Your task to perform on an android device: open a new tab in the chrome app Image 0: 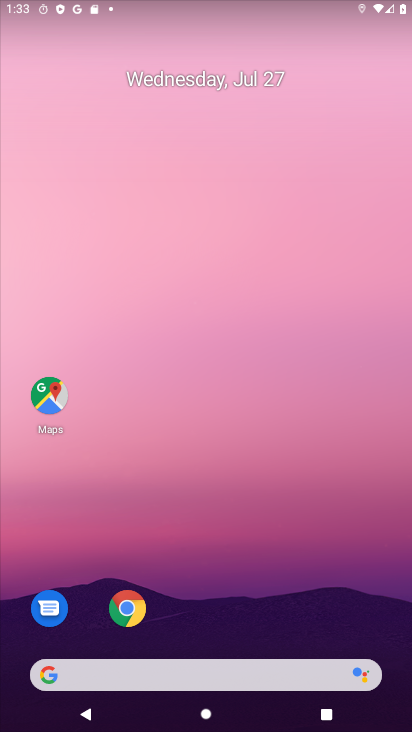
Step 0: press home button
Your task to perform on an android device: open a new tab in the chrome app Image 1: 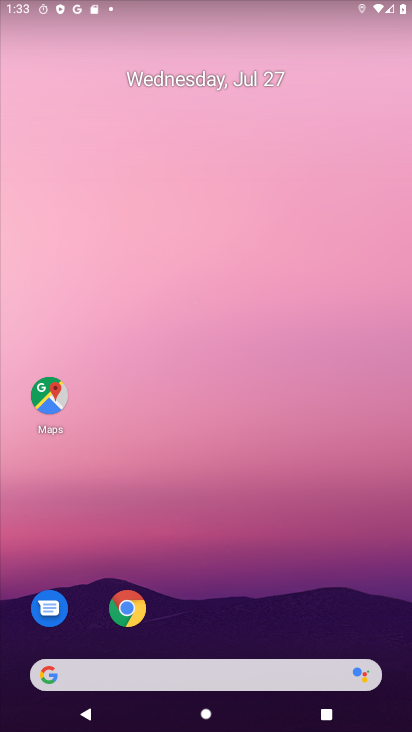
Step 1: click (119, 610)
Your task to perform on an android device: open a new tab in the chrome app Image 2: 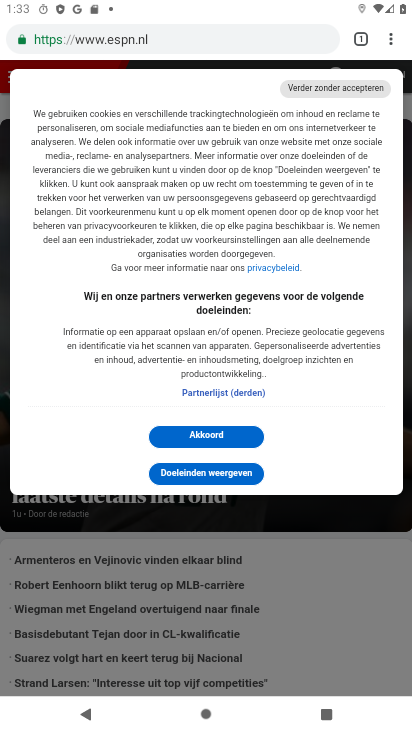
Step 2: click (364, 39)
Your task to perform on an android device: open a new tab in the chrome app Image 3: 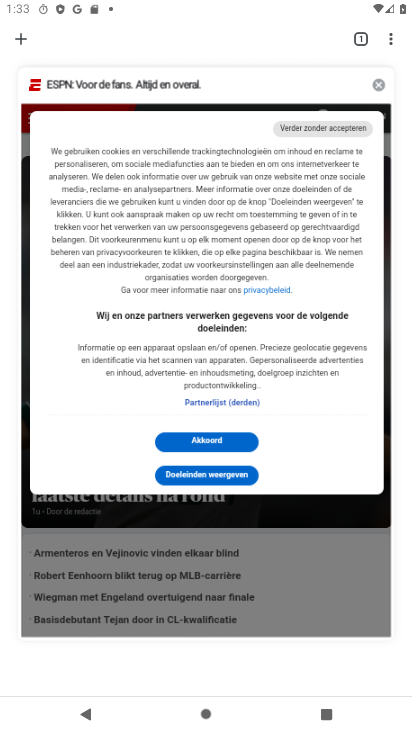
Step 3: click (14, 41)
Your task to perform on an android device: open a new tab in the chrome app Image 4: 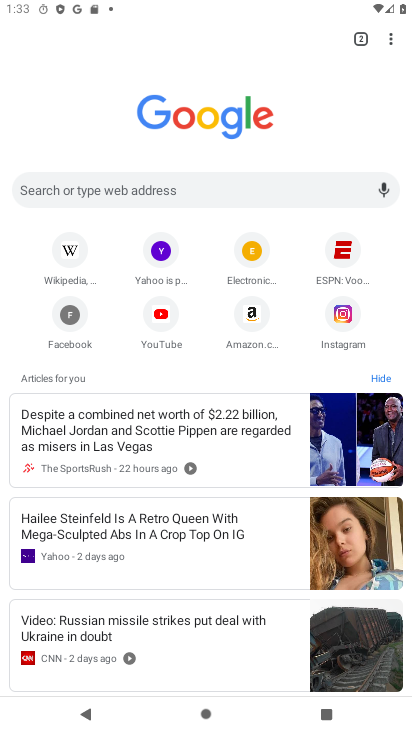
Step 4: task complete